Your task to perform on an android device: find which apps use the phone's location Image 0: 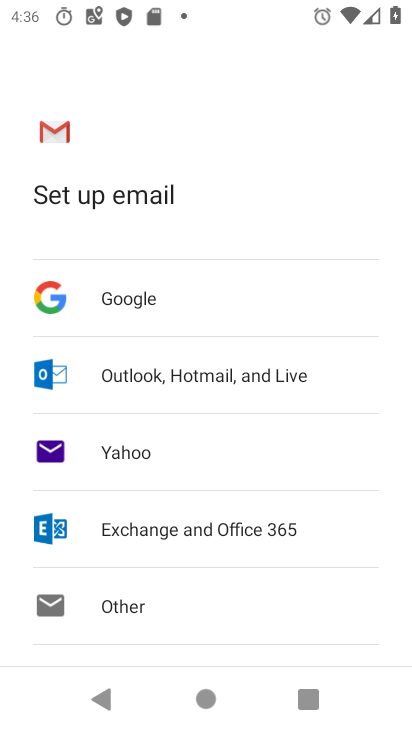
Step 0: press home button
Your task to perform on an android device: find which apps use the phone's location Image 1: 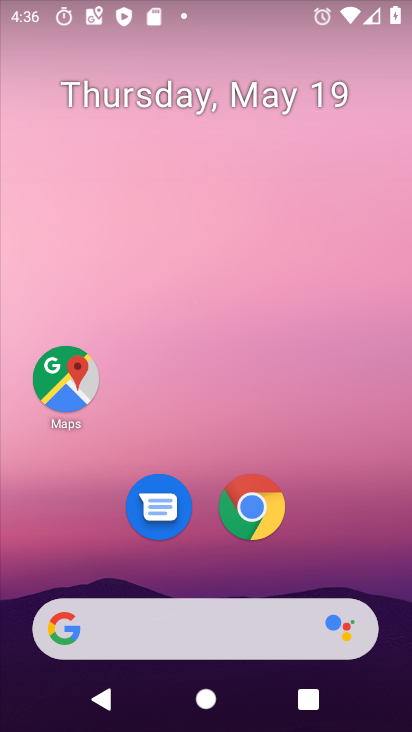
Step 1: drag from (374, 413) to (344, 178)
Your task to perform on an android device: find which apps use the phone's location Image 2: 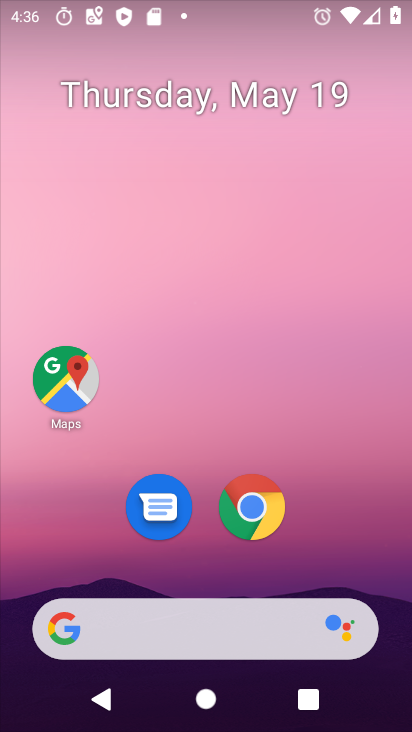
Step 2: drag from (384, 521) to (368, 321)
Your task to perform on an android device: find which apps use the phone's location Image 3: 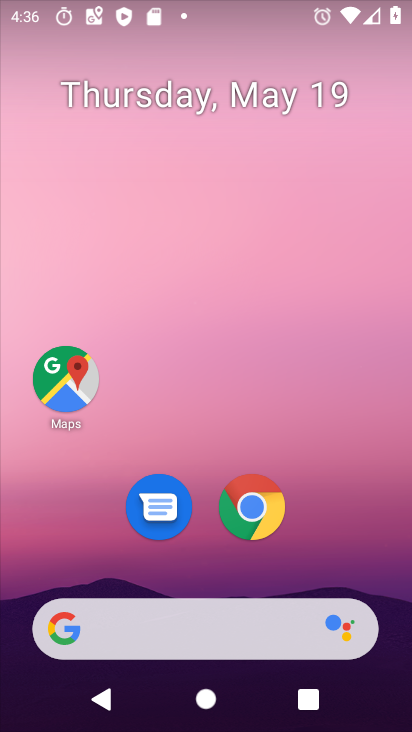
Step 3: drag from (398, 658) to (375, 177)
Your task to perform on an android device: find which apps use the phone's location Image 4: 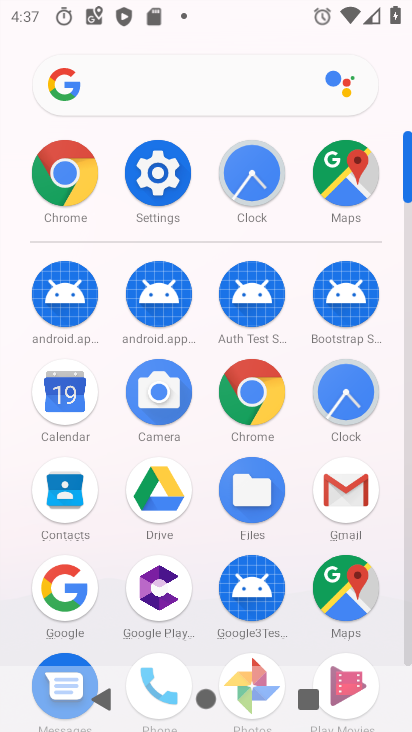
Step 4: click (154, 188)
Your task to perform on an android device: find which apps use the phone's location Image 5: 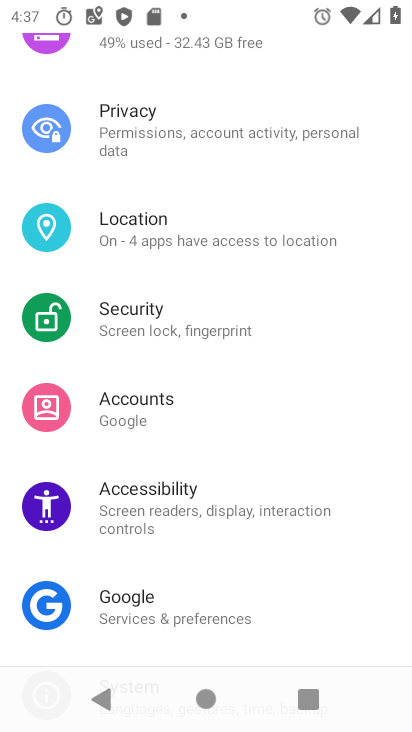
Step 5: click (123, 224)
Your task to perform on an android device: find which apps use the phone's location Image 6: 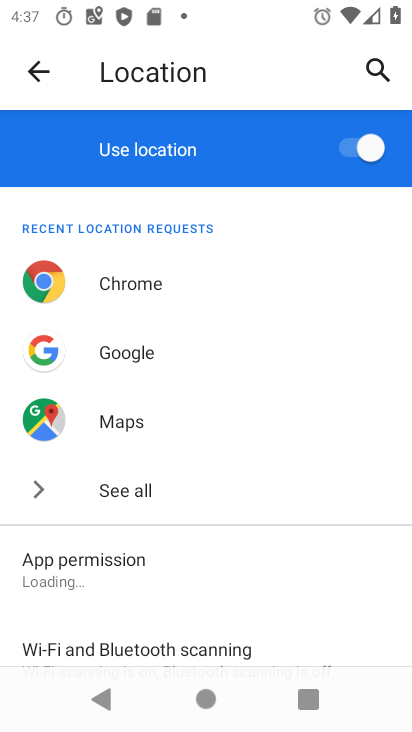
Step 6: click (46, 565)
Your task to perform on an android device: find which apps use the phone's location Image 7: 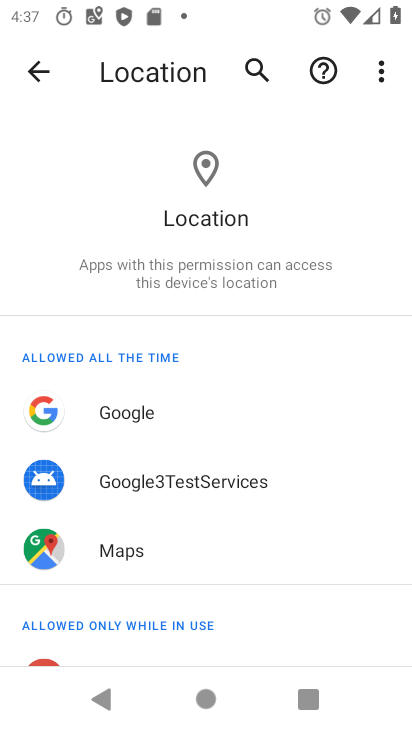
Step 7: task complete